Your task to perform on an android device: toggle show notifications on the lock screen Image 0: 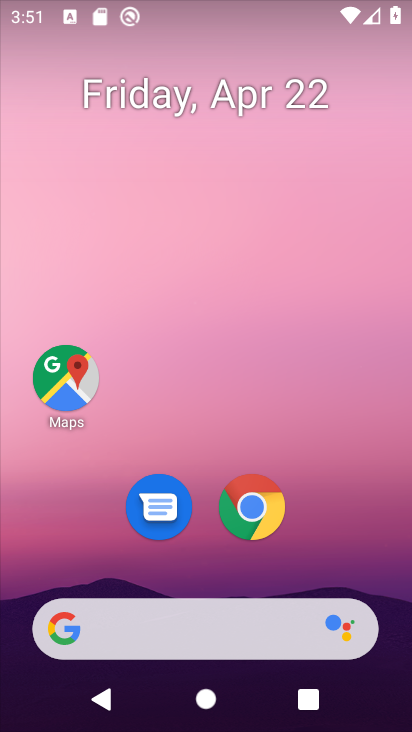
Step 0: drag from (392, 570) to (388, 39)
Your task to perform on an android device: toggle show notifications on the lock screen Image 1: 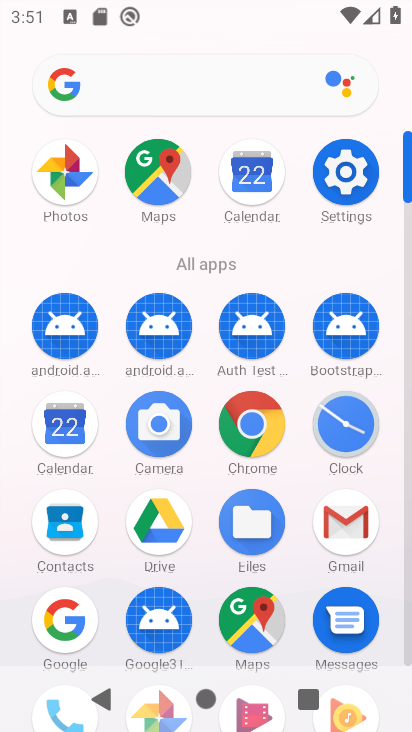
Step 1: click (409, 649)
Your task to perform on an android device: toggle show notifications on the lock screen Image 2: 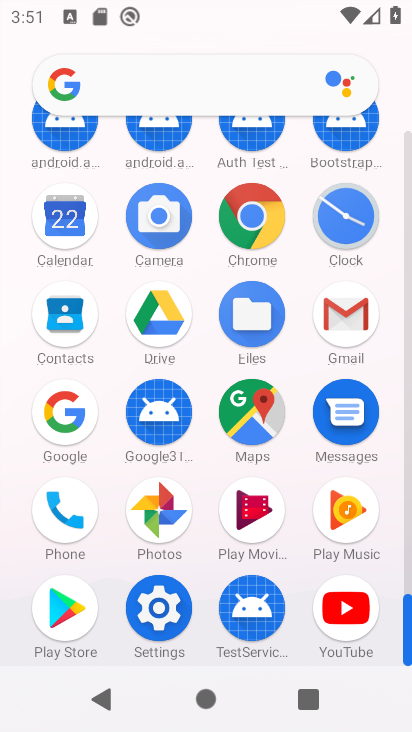
Step 2: click (158, 602)
Your task to perform on an android device: toggle show notifications on the lock screen Image 3: 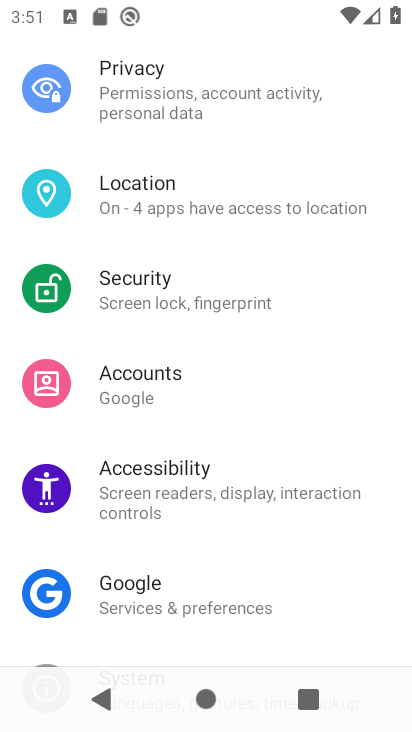
Step 3: drag from (380, 184) to (333, 444)
Your task to perform on an android device: toggle show notifications on the lock screen Image 4: 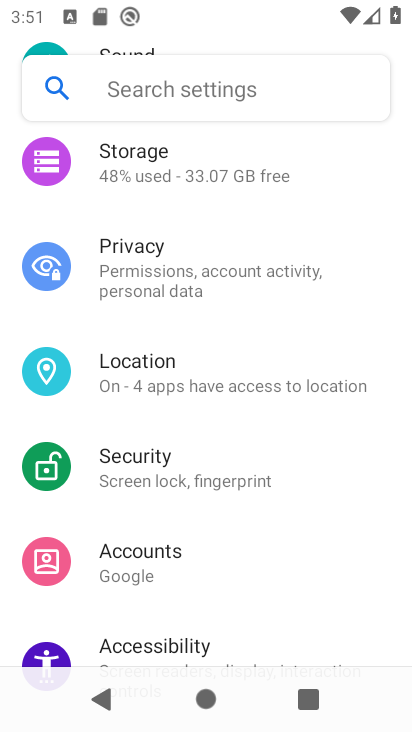
Step 4: click (151, 366)
Your task to perform on an android device: toggle show notifications on the lock screen Image 5: 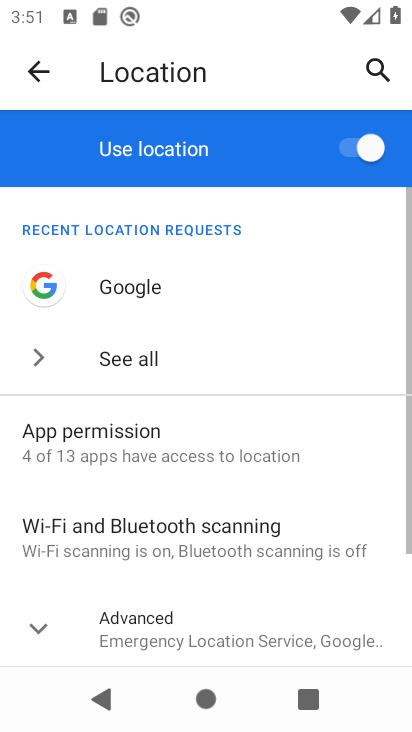
Step 5: click (34, 627)
Your task to perform on an android device: toggle show notifications on the lock screen Image 6: 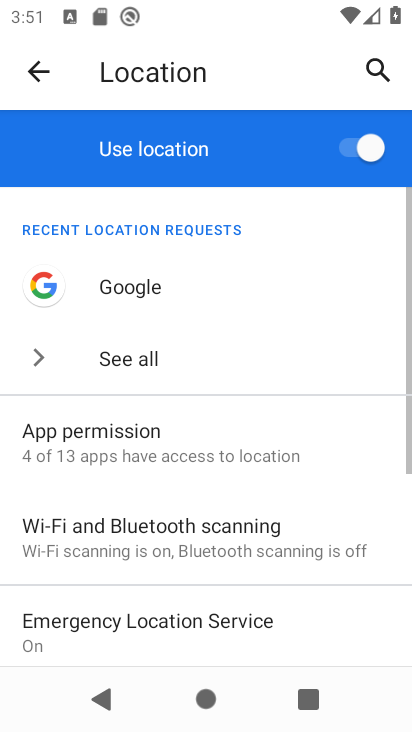
Step 6: drag from (343, 599) to (372, 229)
Your task to perform on an android device: toggle show notifications on the lock screen Image 7: 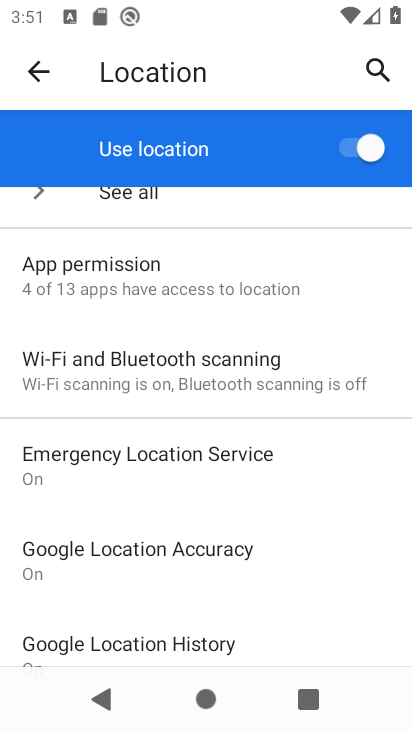
Step 7: press home button
Your task to perform on an android device: toggle show notifications on the lock screen Image 8: 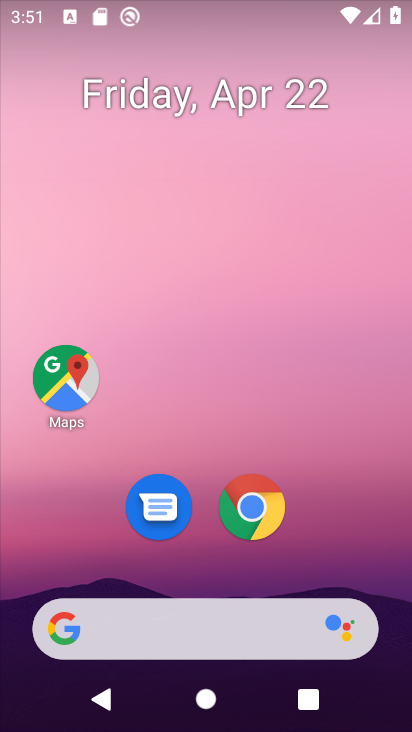
Step 8: drag from (396, 584) to (313, 26)
Your task to perform on an android device: toggle show notifications on the lock screen Image 9: 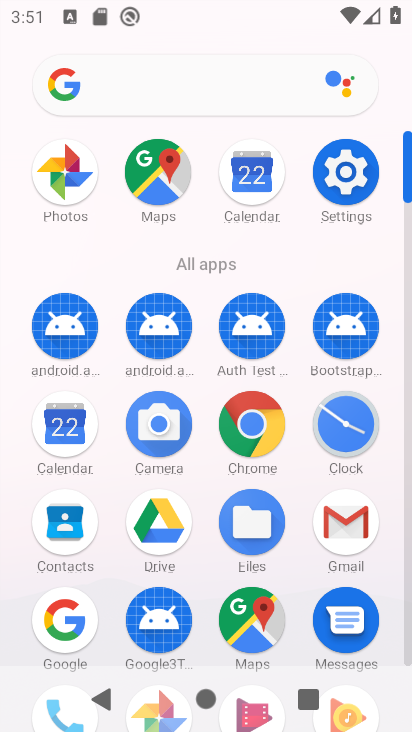
Step 9: click (407, 641)
Your task to perform on an android device: toggle show notifications on the lock screen Image 10: 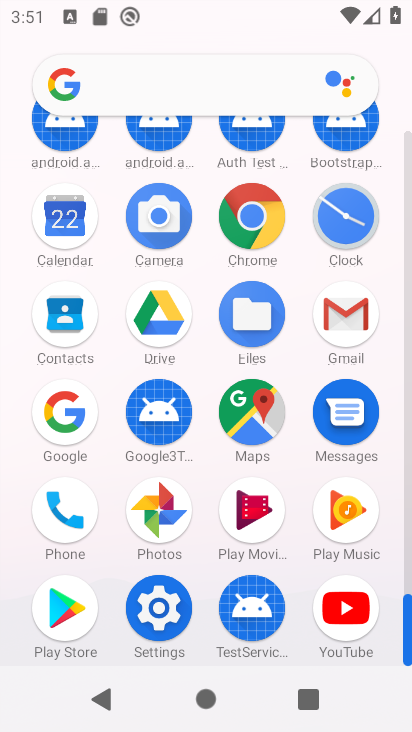
Step 10: click (154, 608)
Your task to perform on an android device: toggle show notifications on the lock screen Image 11: 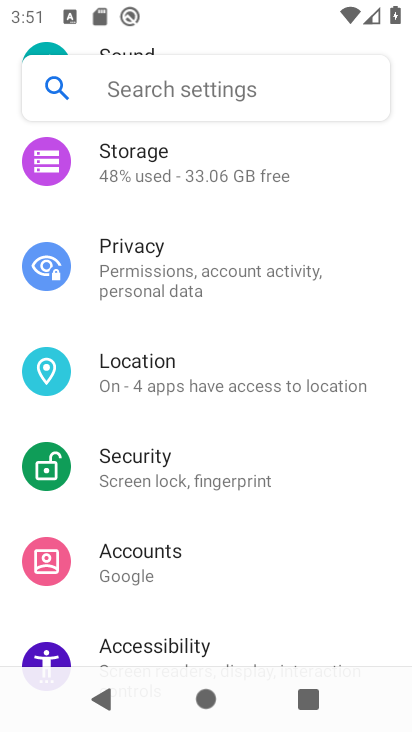
Step 11: drag from (345, 207) to (355, 538)
Your task to perform on an android device: toggle show notifications on the lock screen Image 12: 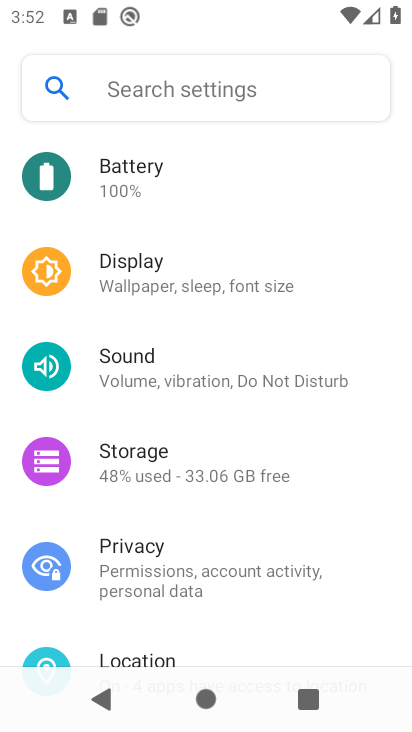
Step 12: drag from (331, 200) to (287, 708)
Your task to perform on an android device: toggle show notifications on the lock screen Image 13: 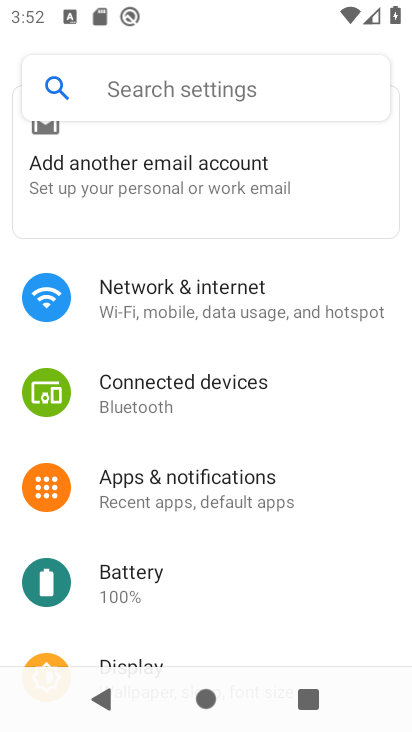
Step 13: click (172, 478)
Your task to perform on an android device: toggle show notifications on the lock screen Image 14: 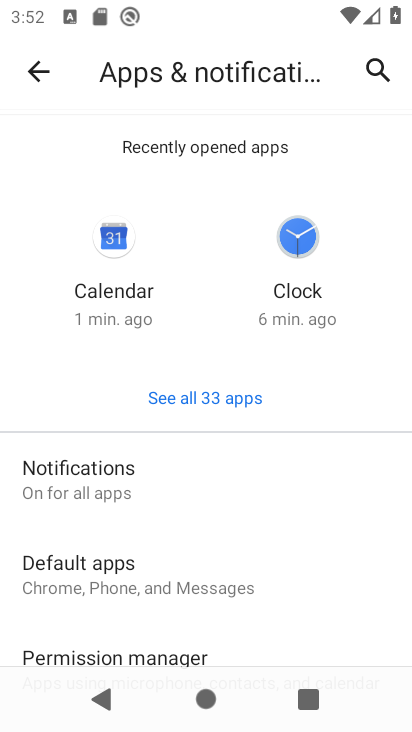
Step 14: drag from (288, 603) to (358, 245)
Your task to perform on an android device: toggle show notifications on the lock screen Image 15: 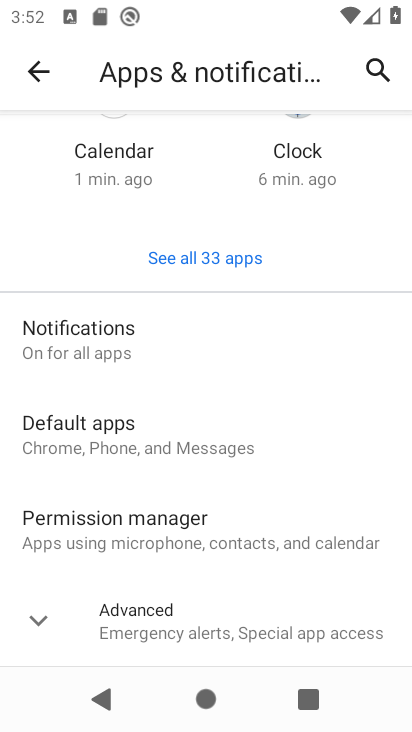
Step 15: click (66, 333)
Your task to perform on an android device: toggle show notifications on the lock screen Image 16: 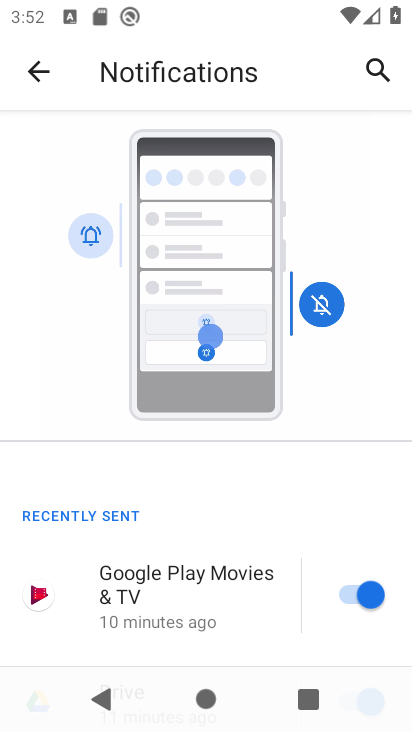
Step 16: drag from (286, 582) to (285, 99)
Your task to perform on an android device: toggle show notifications on the lock screen Image 17: 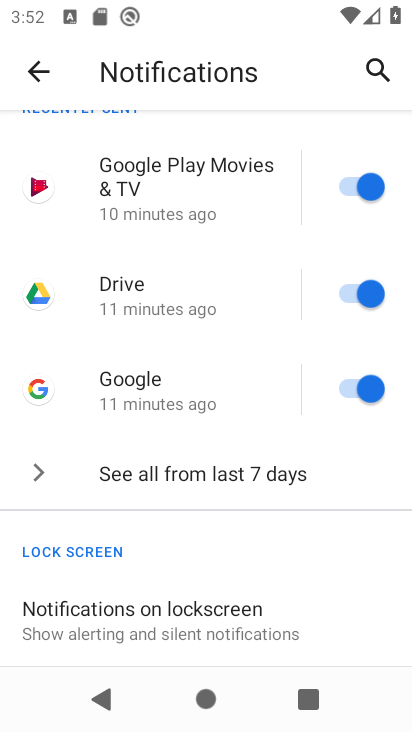
Step 17: drag from (276, 594) to (304, 227)
Your task to perform on an android device: toggle show notifications on the lock screen Image 18: 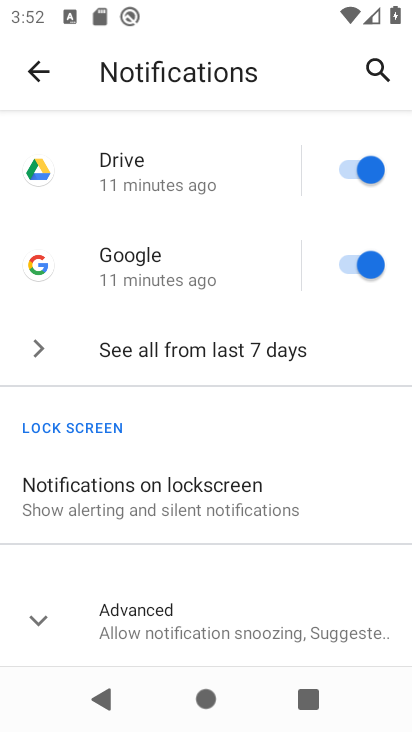
Step 18: click (34, 621)
Your task to perform on an android device: toggle show notifications on the lock screen Image 19: 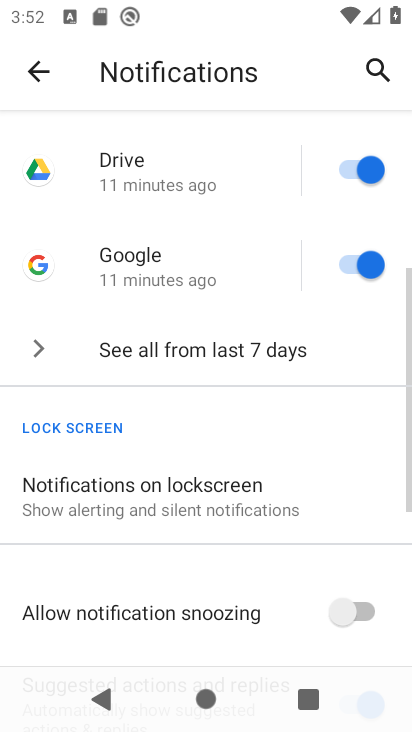
Step 19: drag from (295, 590) to (290, 213)
Your task to perform on an android device: toggle show notifications on the lock screen Image 20: 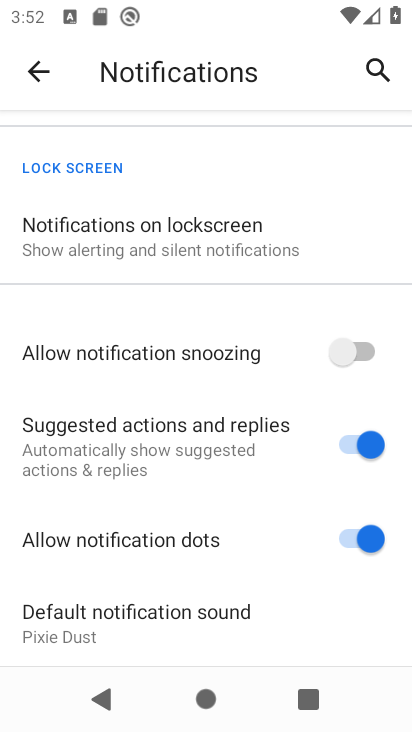
Step 20: click (154, 249)
Your task to perform on an android device: toggle show notifications on the lock screen Image 21: 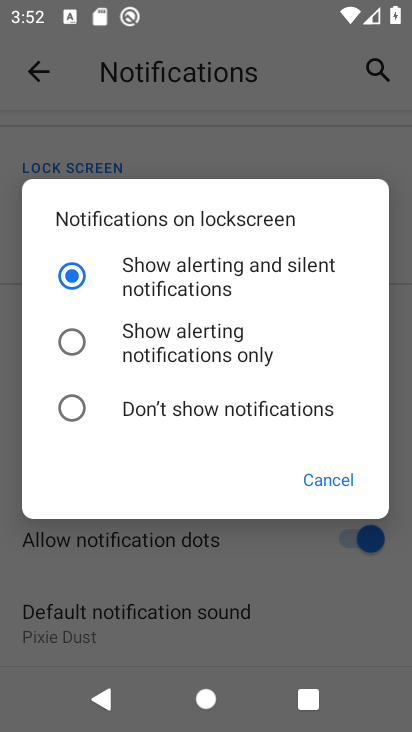
Step 21: task complete